Your task to perform on an android device: change notifications settings Image 0: 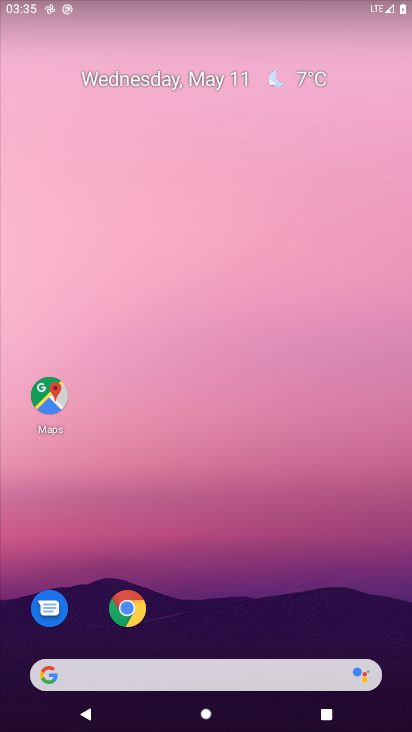
Step 0: drag from (227, 632) to (267, 65)
Your task to perform on an android device: change notifications settings Image 1: 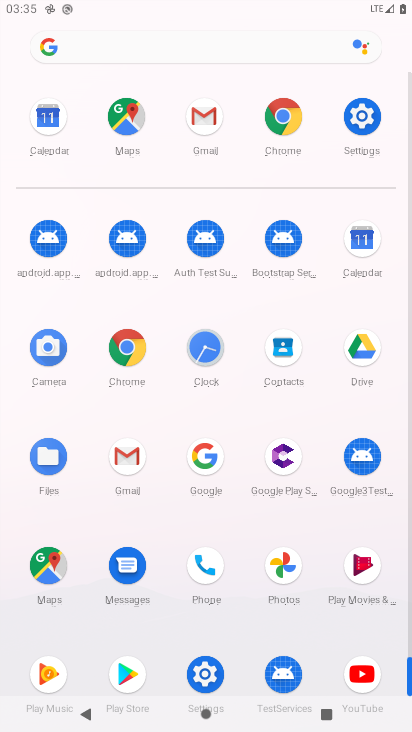
Step 1: click (362, 119)
Your task to perform on an android device: change notifications settings Image 2: 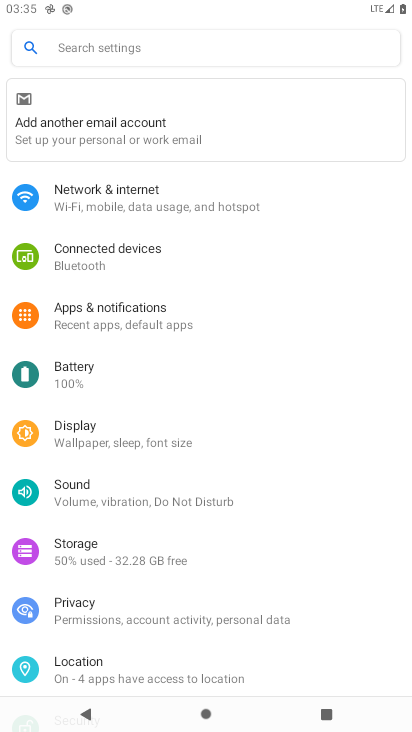
Step 2: click (117, 320)
Your task to perform on an android device: change notifications settings Image 3: 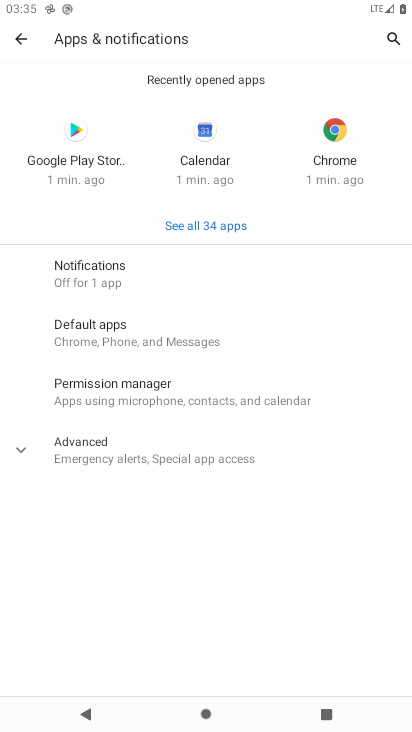
Step 3: click (130, 265)
Your task to perform on an android device: change notifications settings Image 4: 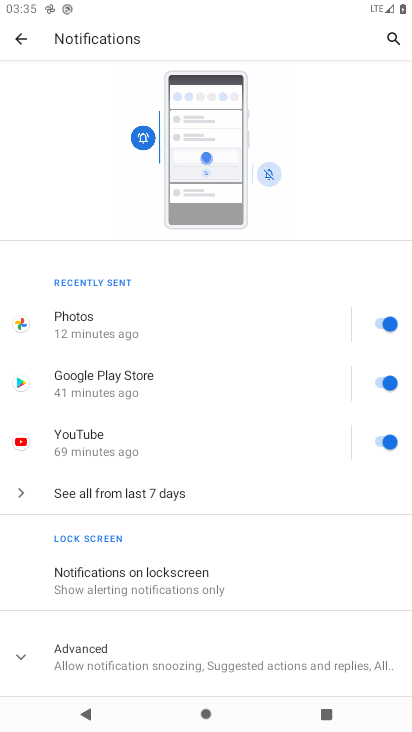
Step 4: click (387, 319)
Your task to perform on an android device: change notifications settings Image 5: 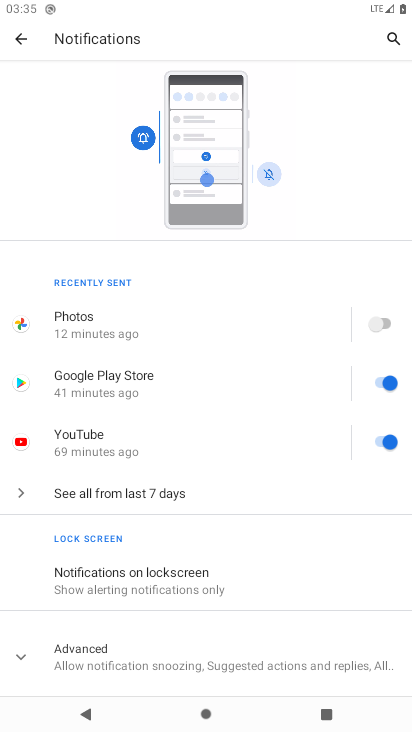
Step 5: click (381, 386)
Your task to perform on an android device: change notifications settings Image 6: 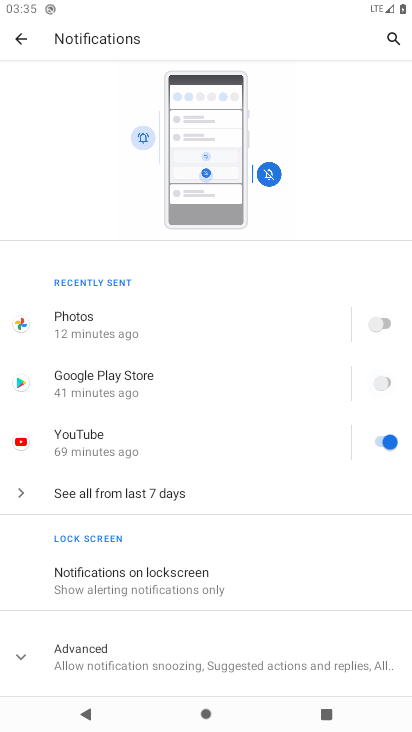
Step 6: click (384, 442)
Your task to perform on an android device: change notifications settings Image 7: 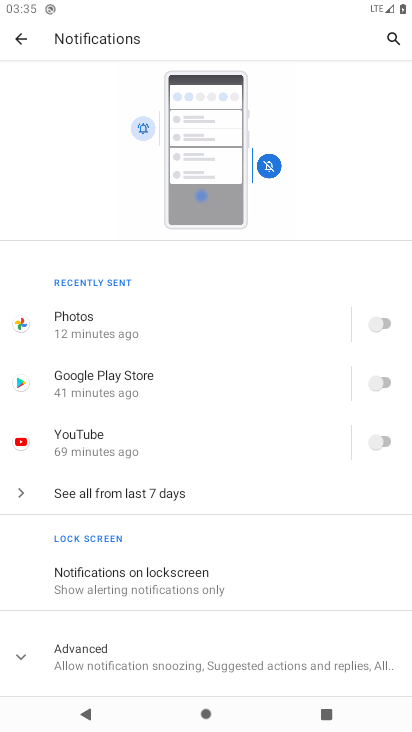
Step 7: drag from (195, 637) to (222, 226)
Your task to perform on an android device: change notifications settings Image 8: 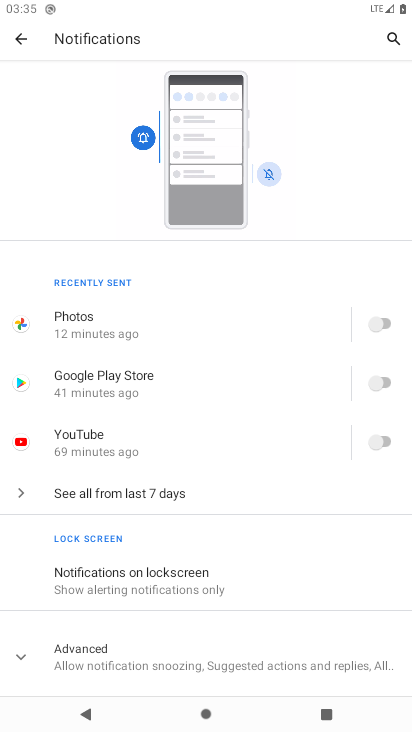
Step 8: click (16, 653)
Your task to perform on an android device: change notifications settings Image 9: 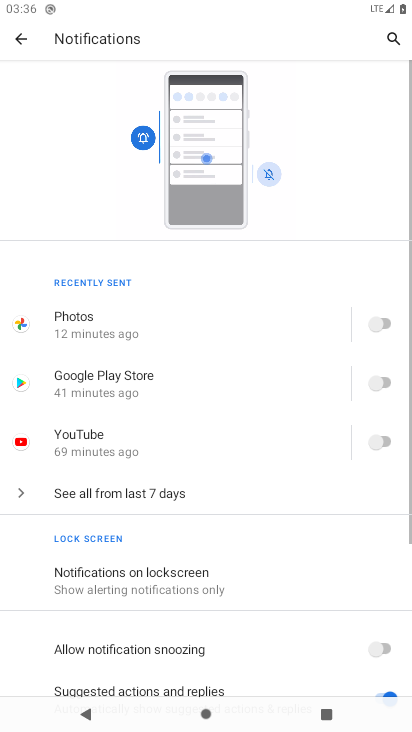
Step 9: task complete